Your task to perform on an android device: open a new tab in the chrome app Image 0: 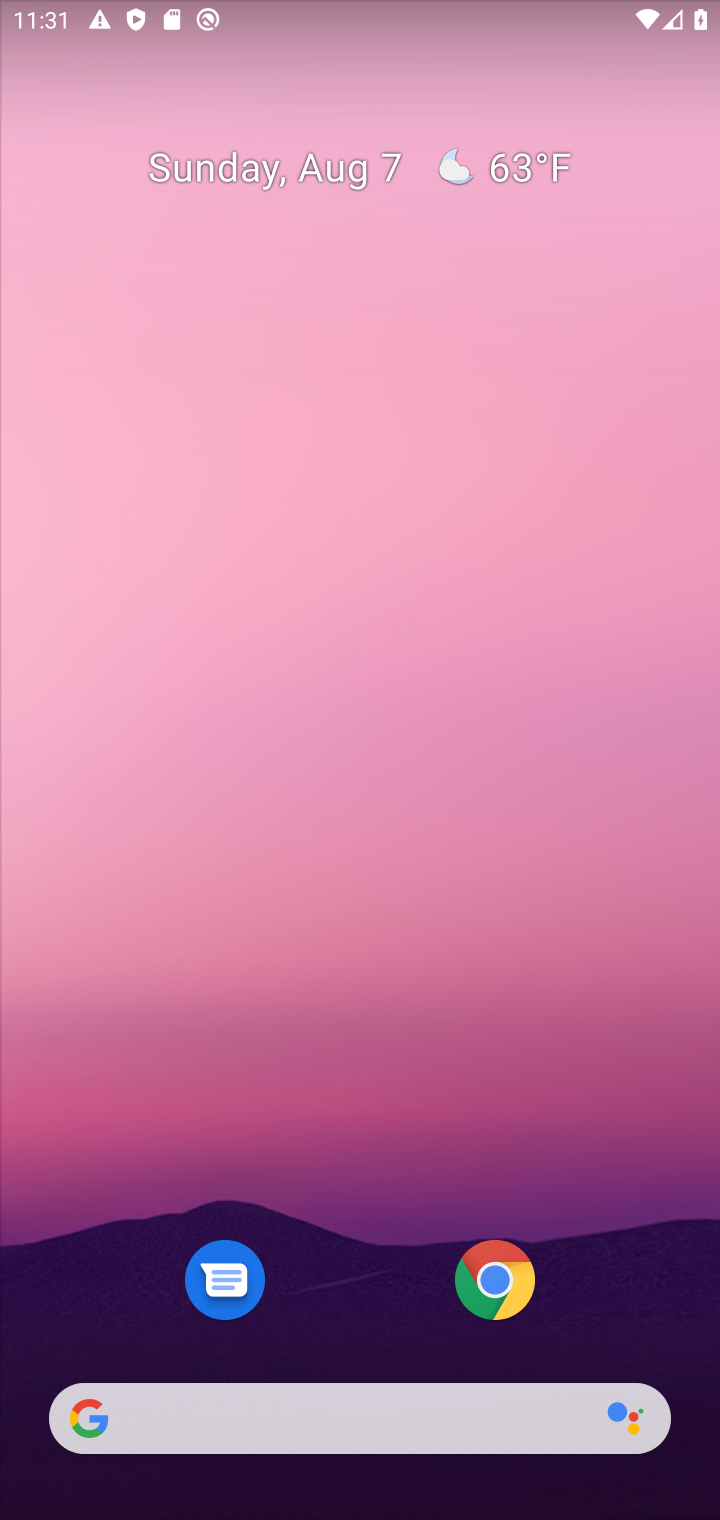
Step 0: click (502, 1277)
Your task to perform on an android device: open a new tab in the chrome app Image 1: 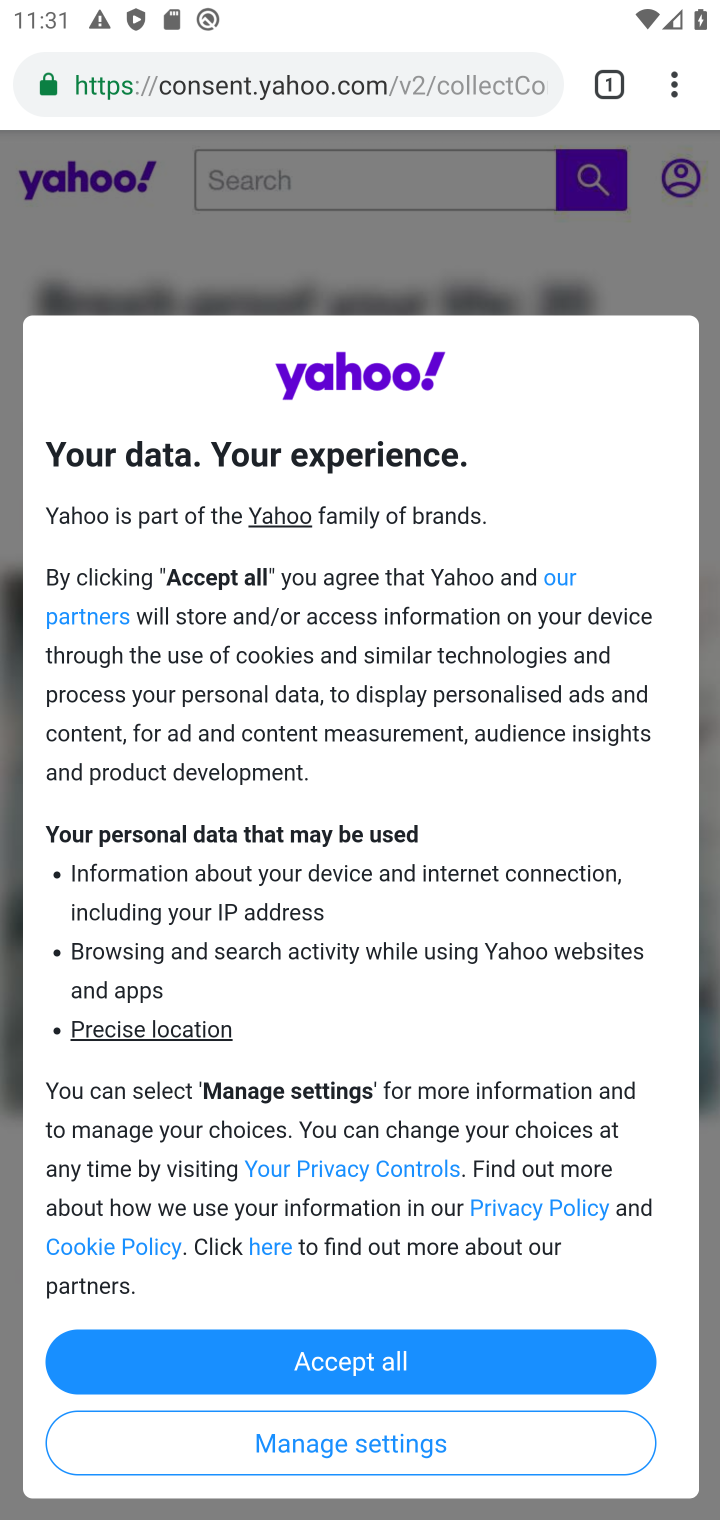
Step 1: click (673, 102)
Your task to perform on an android device: open a new tab in the chrome app Image 2: 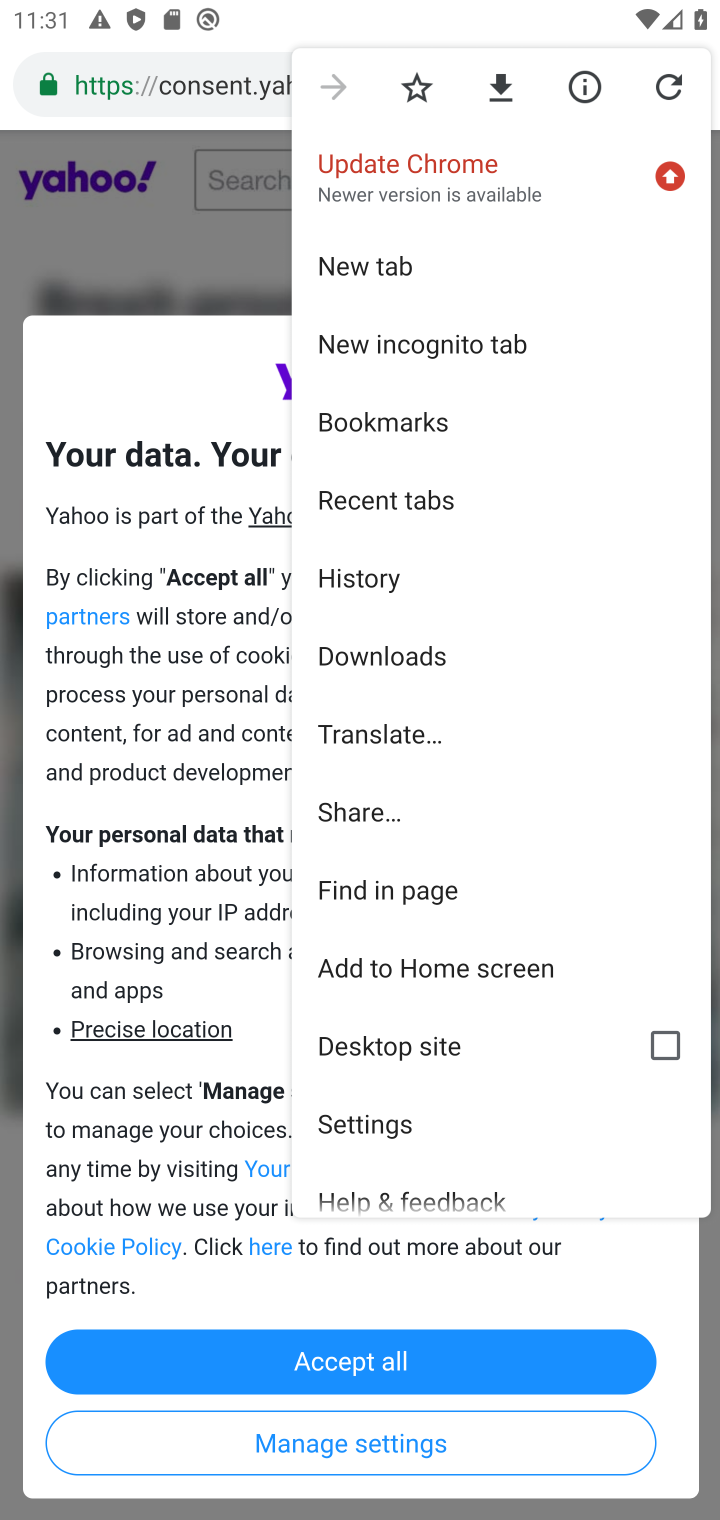
Step 2: click (376, 261)
Your task to perform on an android device: open a new tab in the chrome app Image 3: 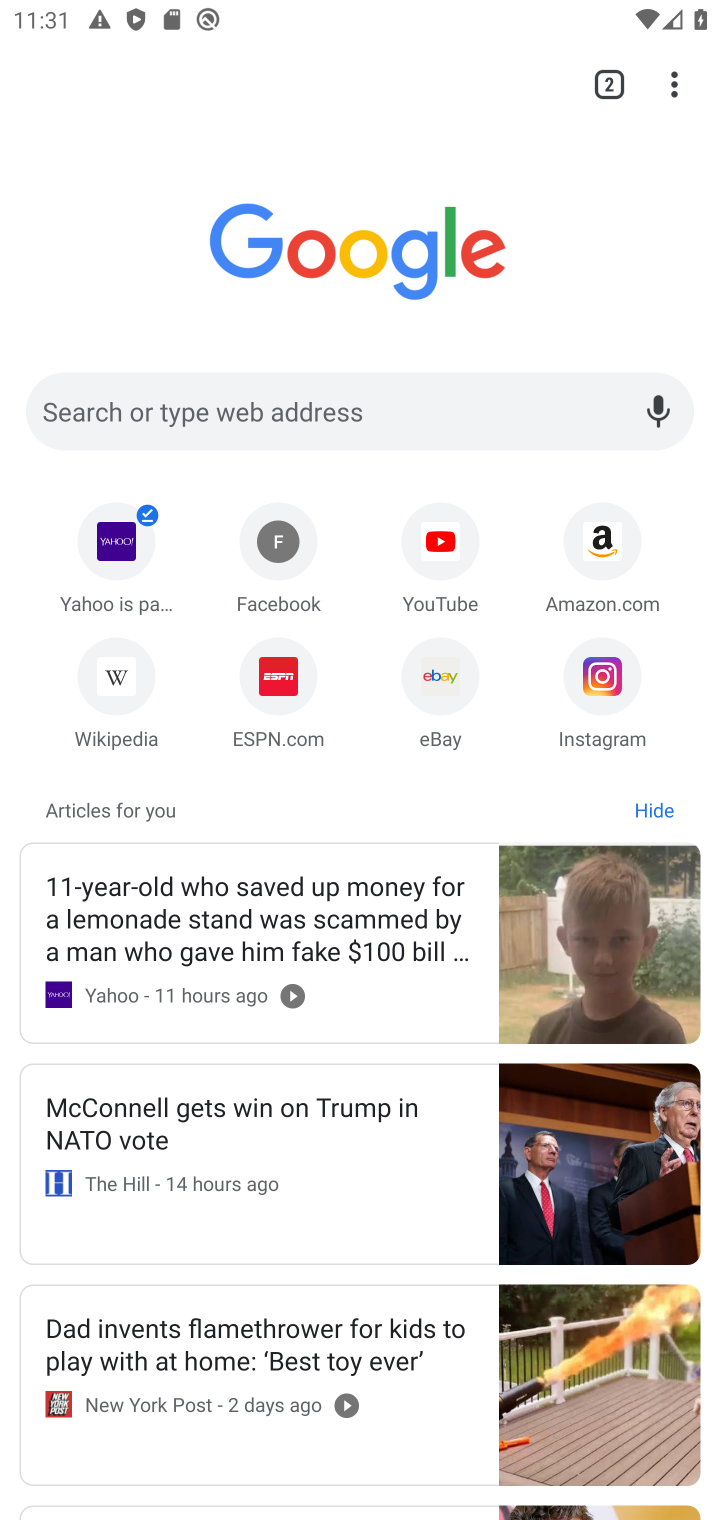
Step 3: task complete